Your task to perform on an android device: Go to Maps Image 0: 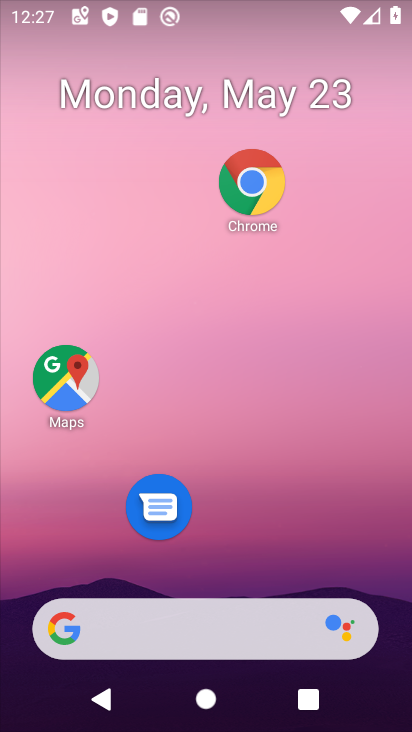
Step 0: drag from (250, 535) to (250, 77)
Your task to perform on an android device: Go to Maps Image 1: 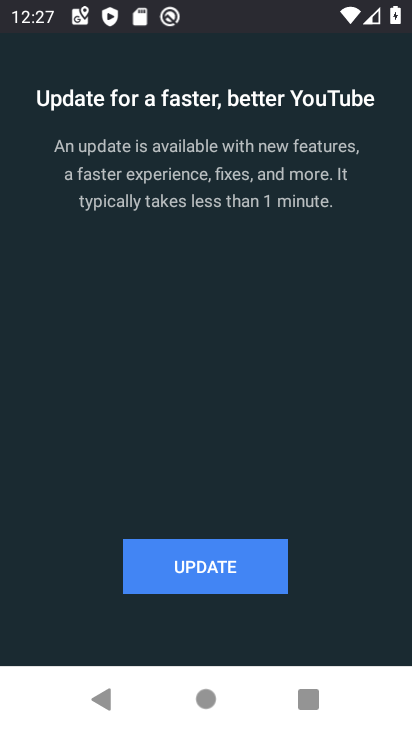
Step 1: press home button
Your task to perform on an android device: Go to Maps Image 2: 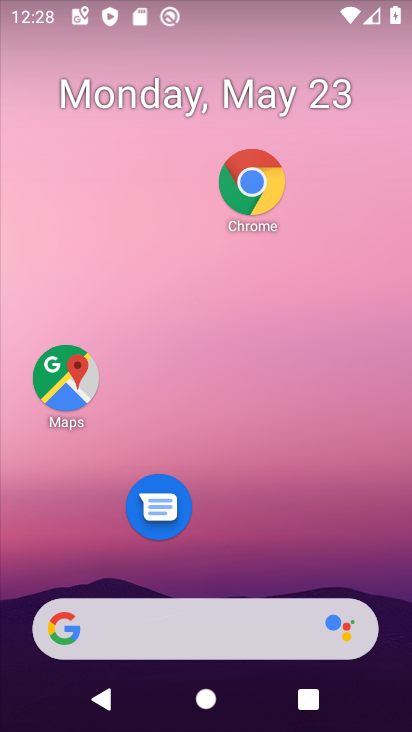
Step 2: click (64, 366)
Your task to perform on an android device: Go to Maps Image 3: 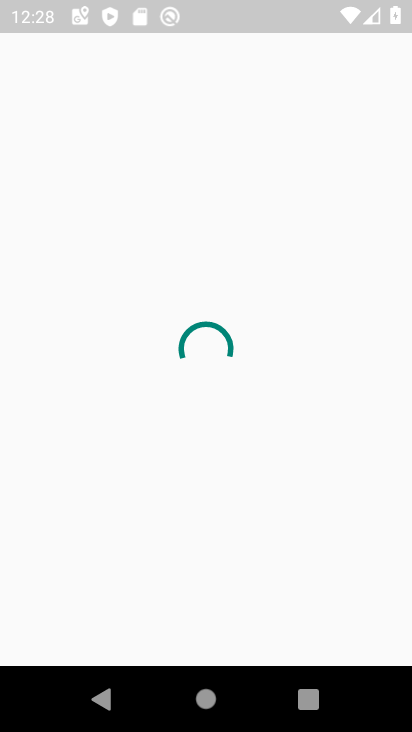
Step 3: task complete